Your task to perform on an android device: When is my next appointment? Image 0: 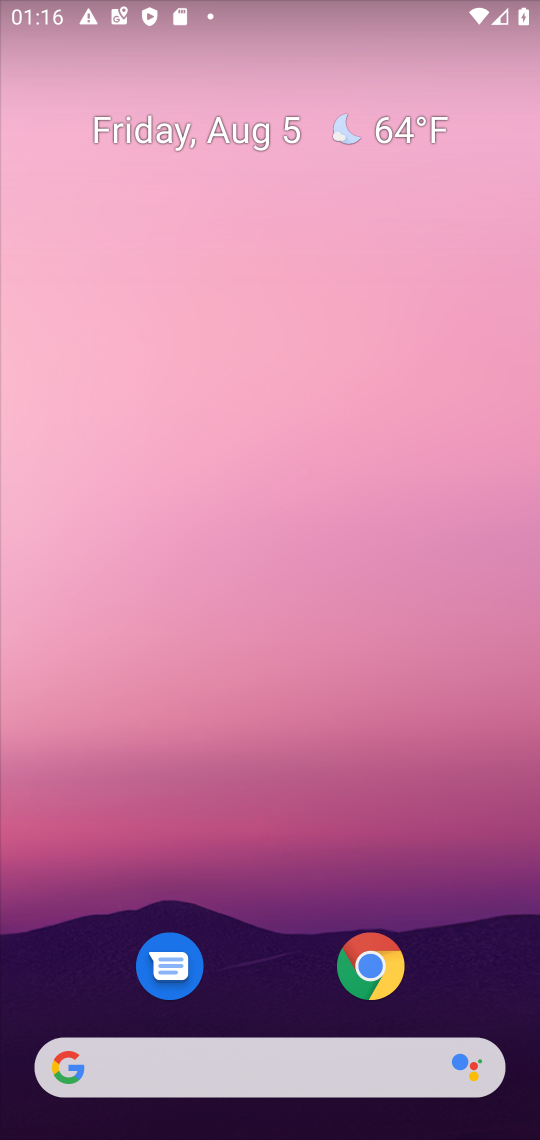
Step 0: drag from (285, 913) to (348, 40)
Your task to perform on an android device: When is my next appointment? Image 1: 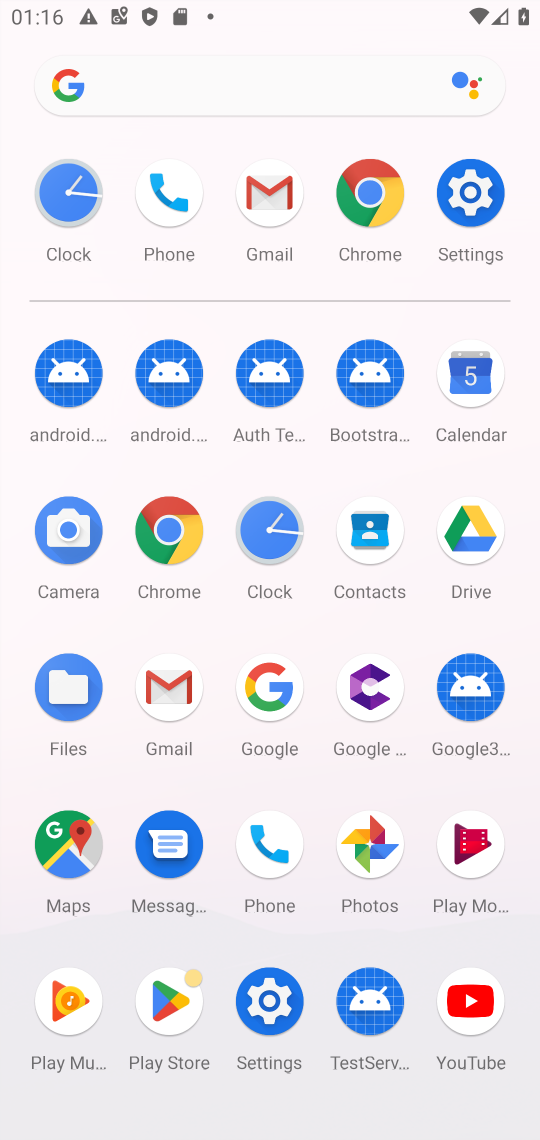
Step 1: click (463, 365)
Your task to perform on an android device: When is my next appointment? Image 2: 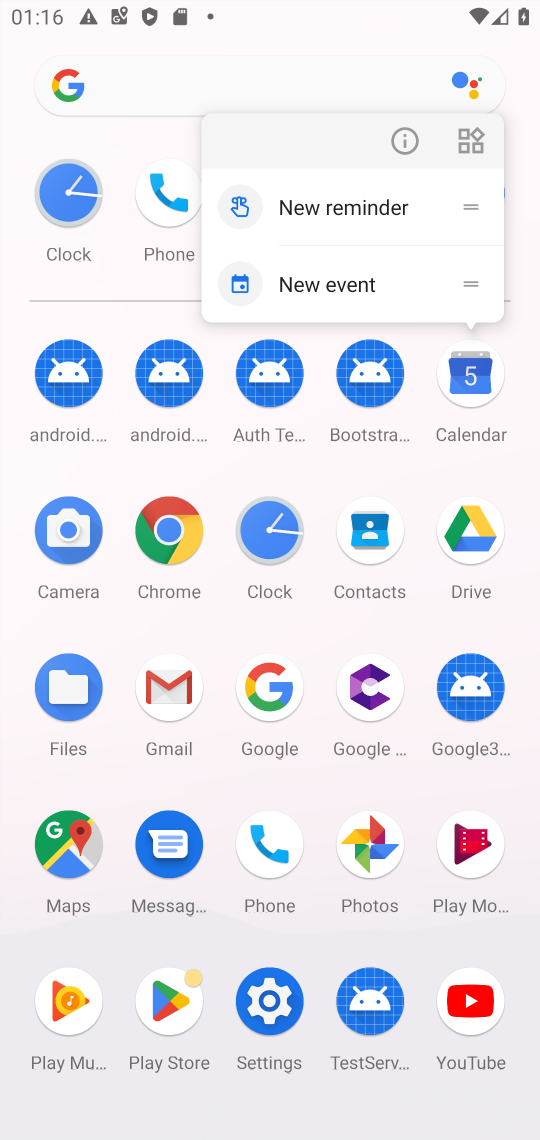
Step 2: click (463, 361)
Your task to perform on an android device: When is my next appointment? Image 3: 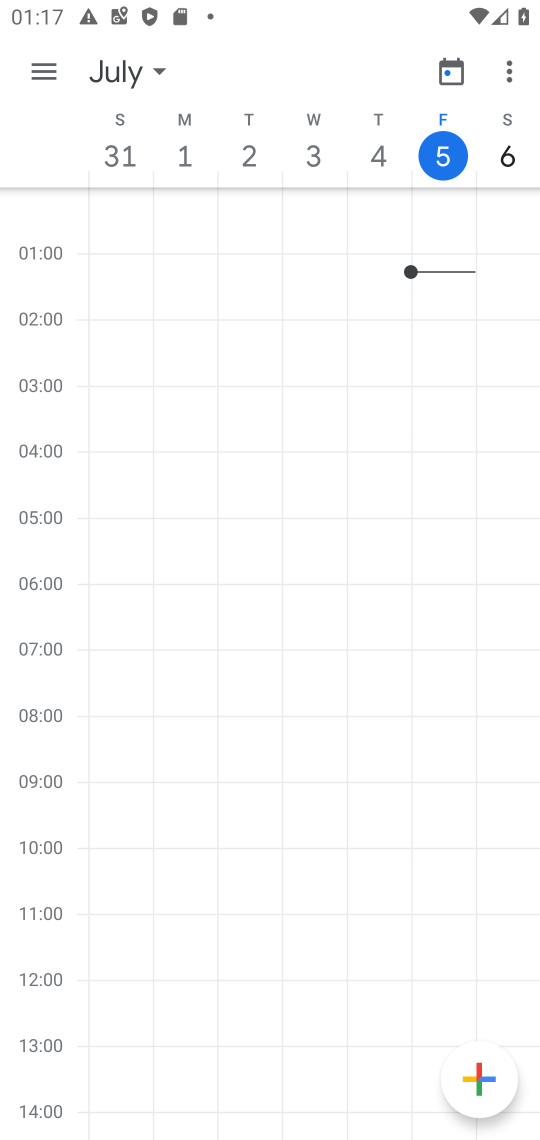
Step 3: click (433, 140)
Your task to perform on an android device: When is my next appointment? Image 4: 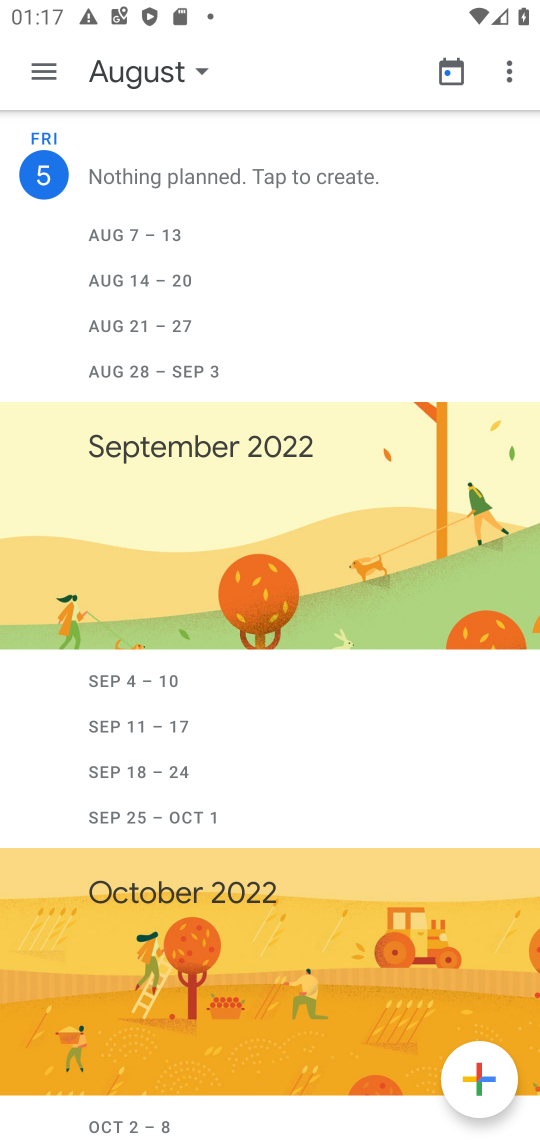
Step 4: task complete